Your task to perform on an android device: show emergency info Image 0: 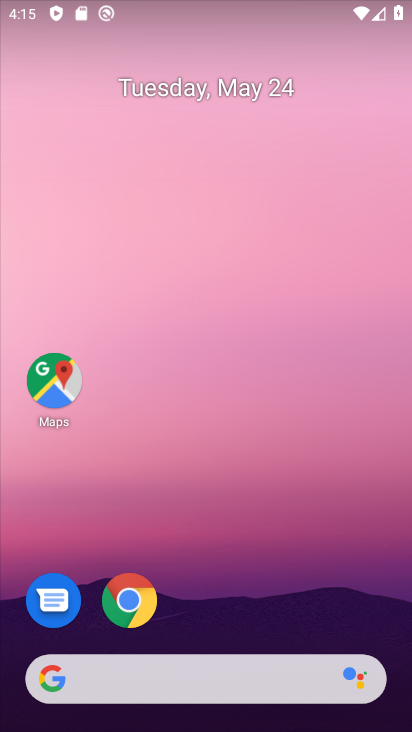
Step 0: drag from (218, 612) to (290, 225)
Your task to perform on an android device: show emergency info Image 1: 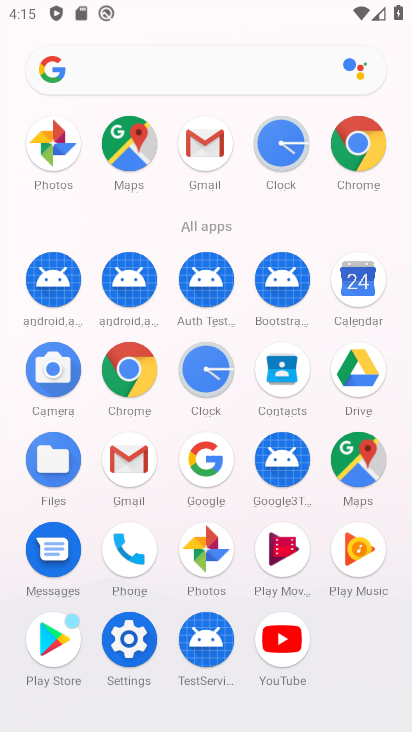
Step 1: drag from (217, 552) to (253, 369)
Your task to perform on an android device: show emergency info Image 2: 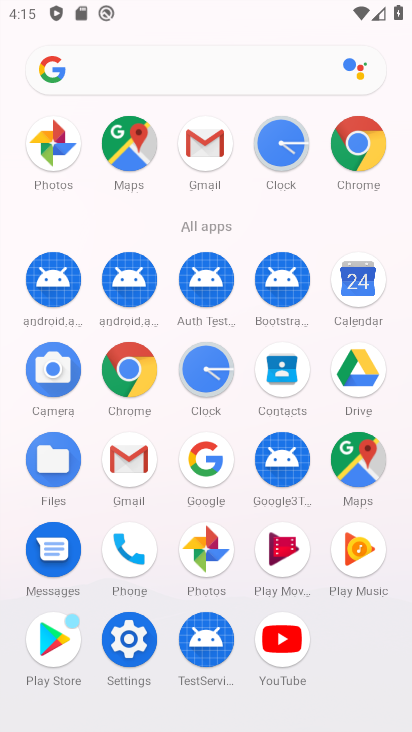
Step 2: click (135, 666)
Your task to perform on an android device: show emergency info Image 3: 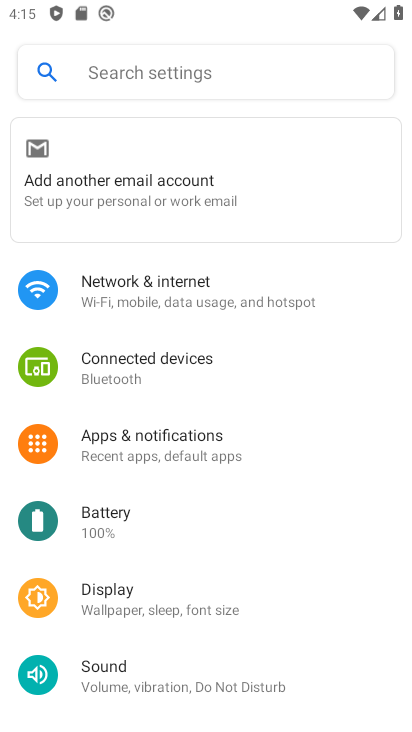
Step 3: drag from (225, 616) to (409, 55)
Your task to perform on an android device: show emergency info Image 4: 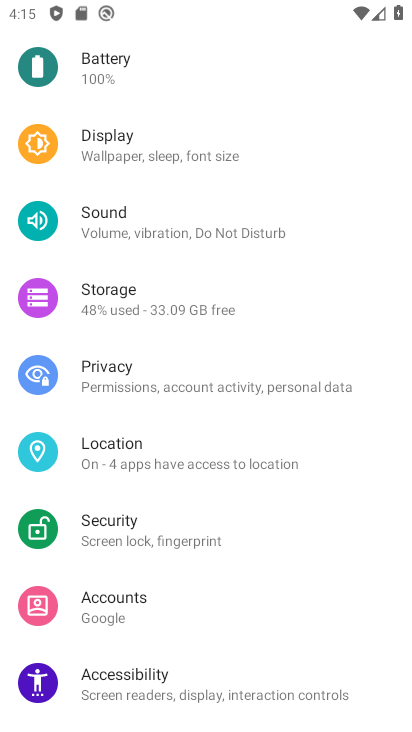
Step 4: drag from (244, 602) to (335, 69)
Your task to perform on an android device: show emergency info Image 5: 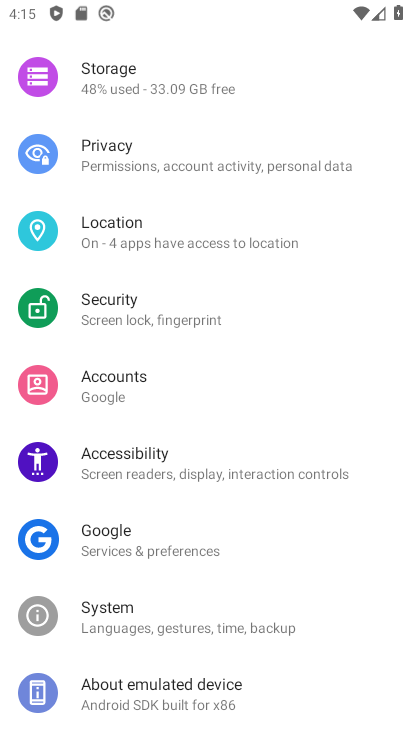
Step 5: drag from (176, 609) to (235, 362)
Your task to perform on an android device: show emergency info Image 6: 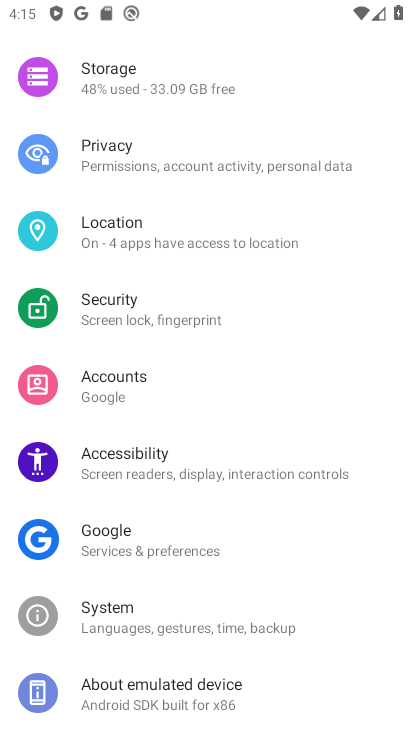
Step 6: click (249, 691)
Your task to perform on an android device: show emergency info Image 7: 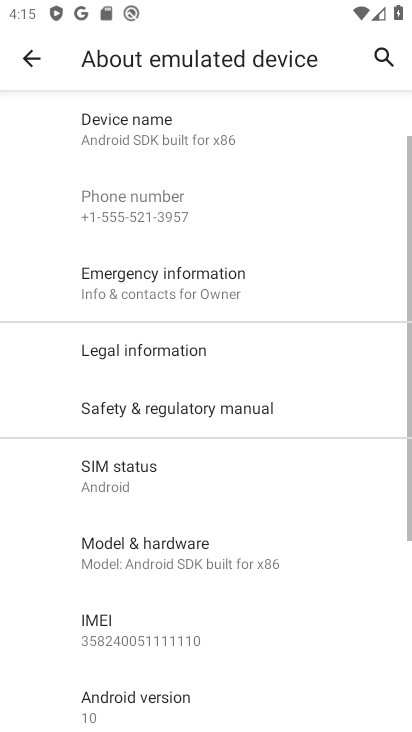
Step 7: drag from (222, 654) to (267, 599)
Your task to perform on an android device: show emergency info Image 8: 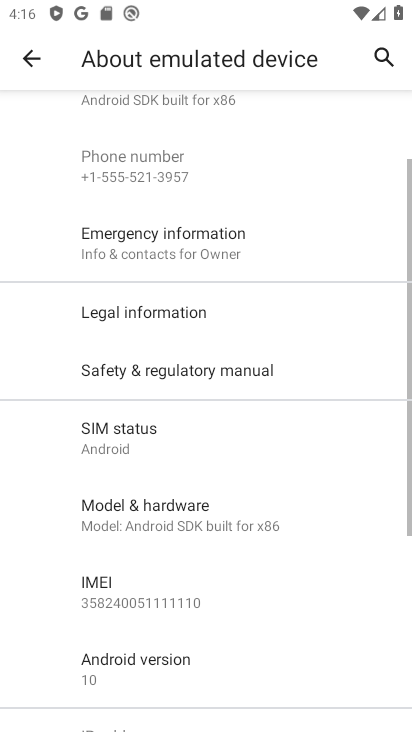
Step 8: click (274, 242)
Your task to perform on an android device: show emergency info Image 9: 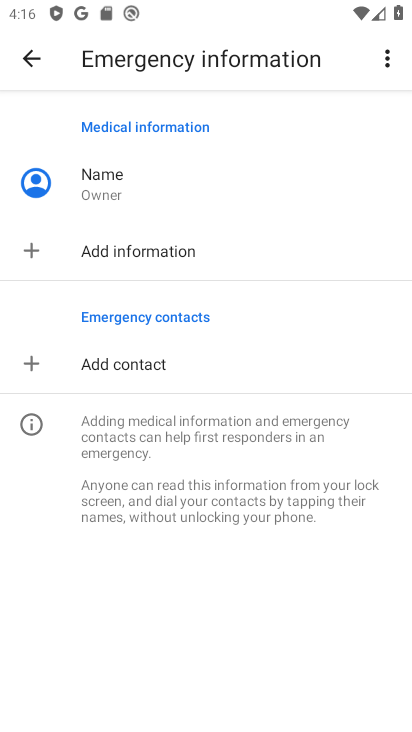
Step 9: task complete